Your task to perform on an android device: turn off javascript in the chrome app Image 0: 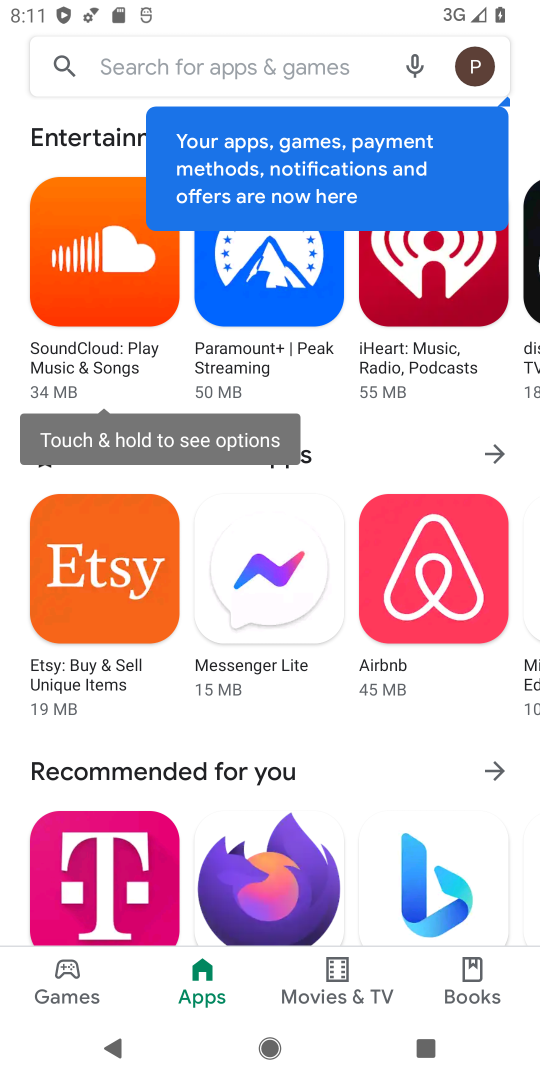
Step 0: press home button
Your task to perform on an android device: turn off javascript in the chrome app Image 1: 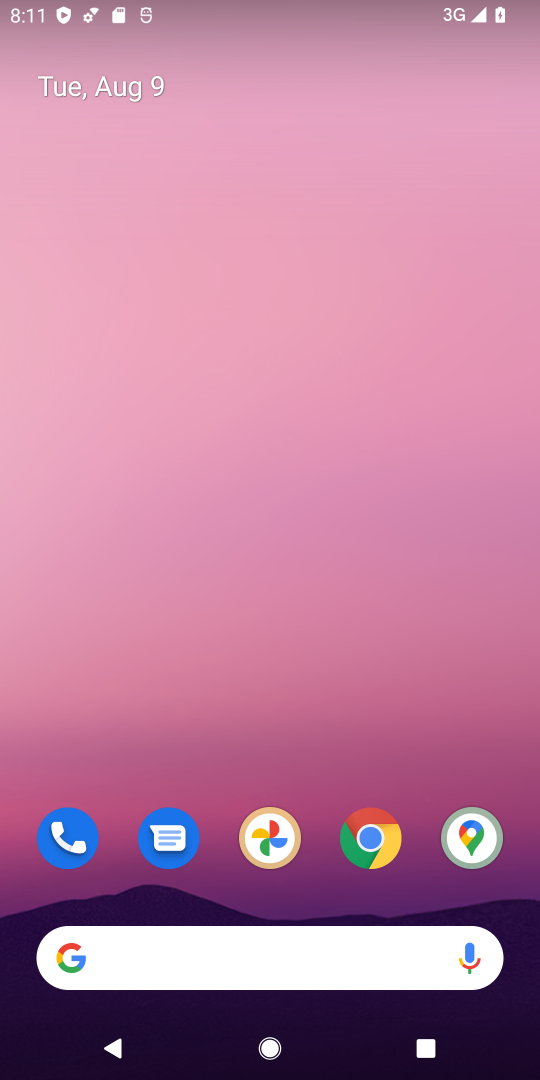
Step 1: click (371, 855)
Your task to perform on an android device: turn off javascript in the chrome app Image 2: 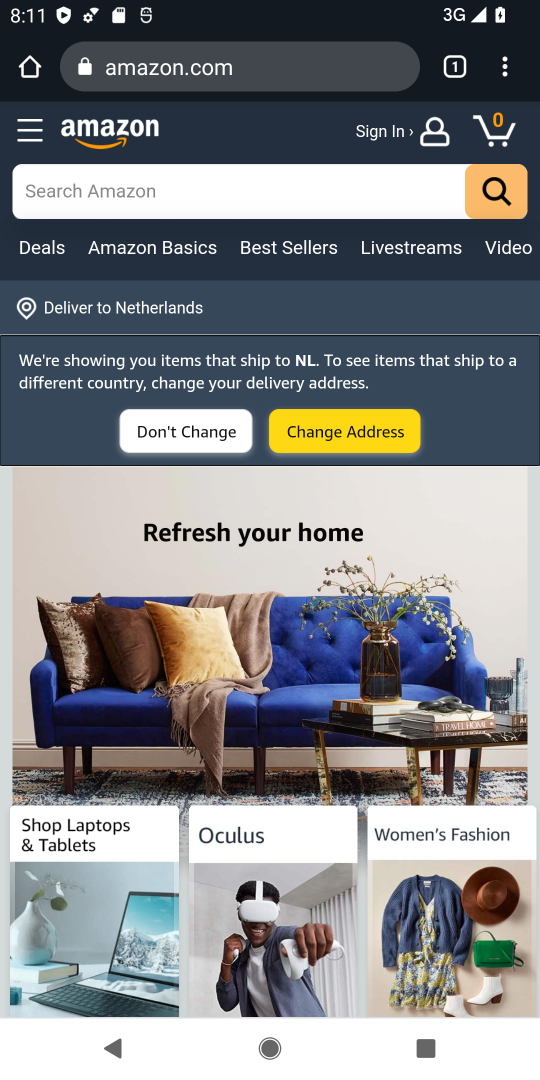
Step 2: drag from (503, 73) to (305, 774)
Your task to perform on an android device: turn off javascript in the chrome app Image 3: 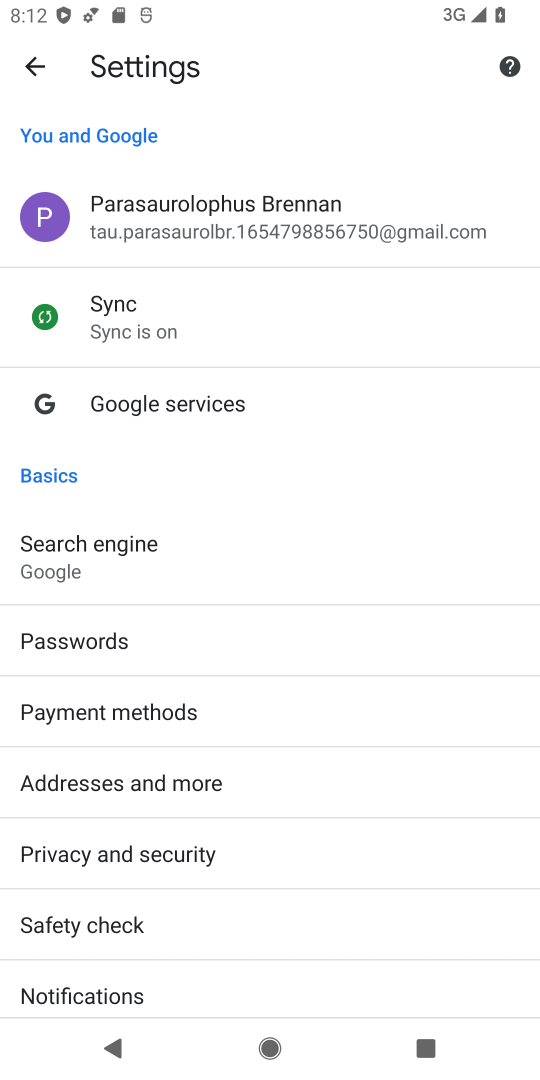
Step 3: drag from (146, 954) to (132, 441)
Your task to perform on an android device: turn off javascript in the chrome app Image 4: 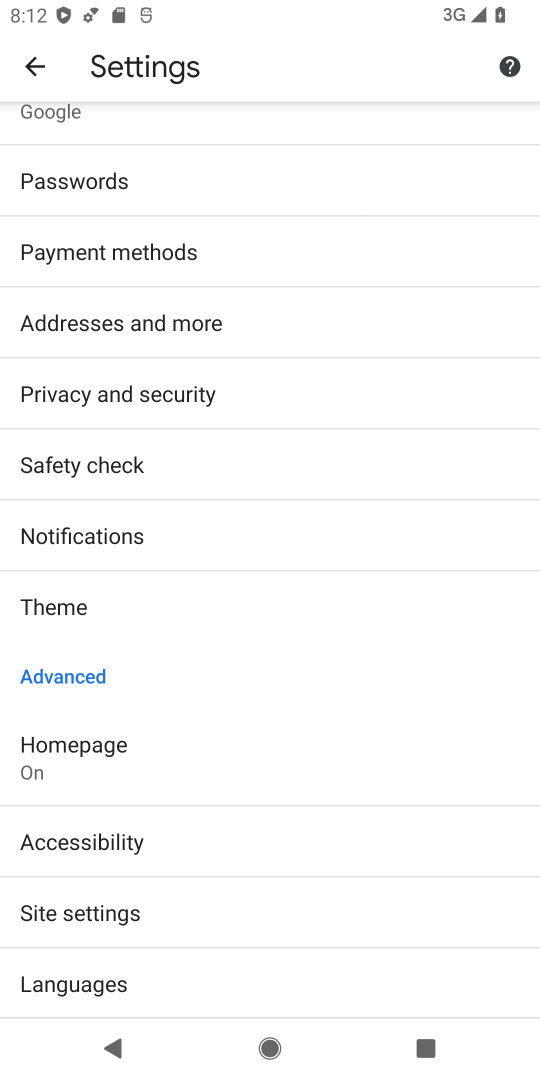
Step 4: click (104, 909)
Your task to perform on an android device: turn off javascript in the chrome app Image 5: 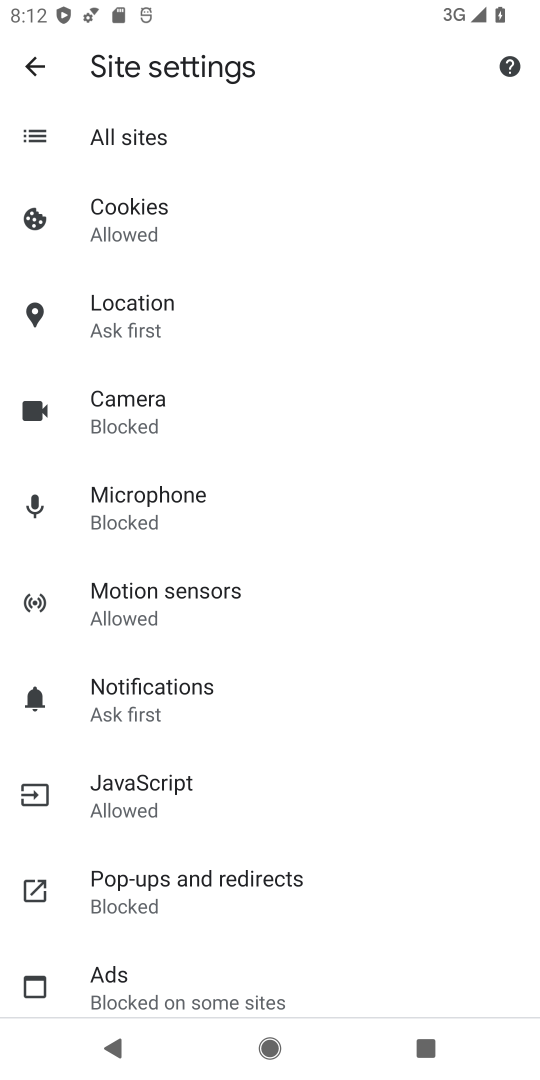
Step 5: click (169, 788)
Your task to perform on an android device: turn off javascript in the chrome app Image 6: 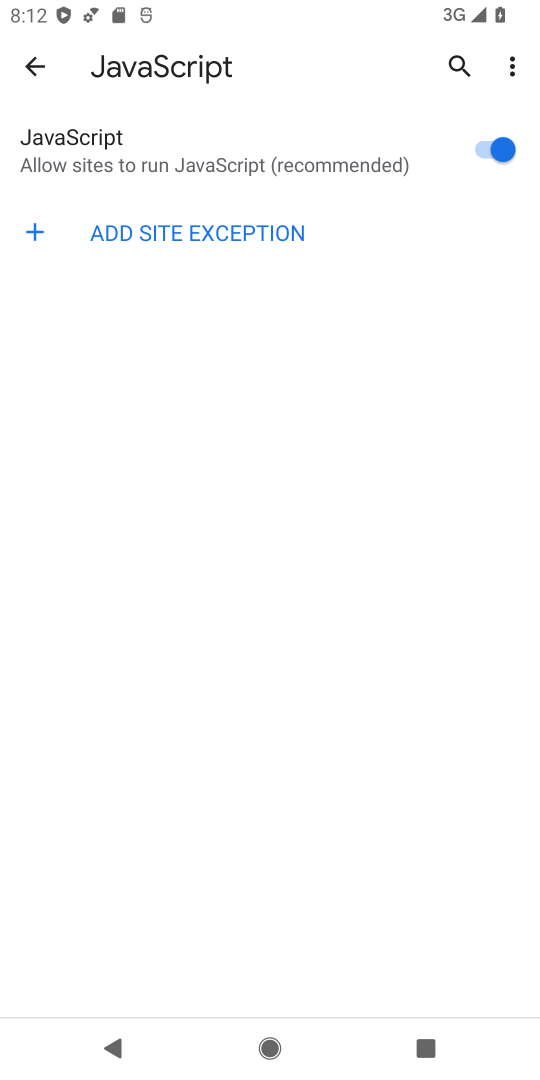
Step 6: click (493, 146)
Your task to perform on an android device: turn off javascript in the chrome app Image 7: 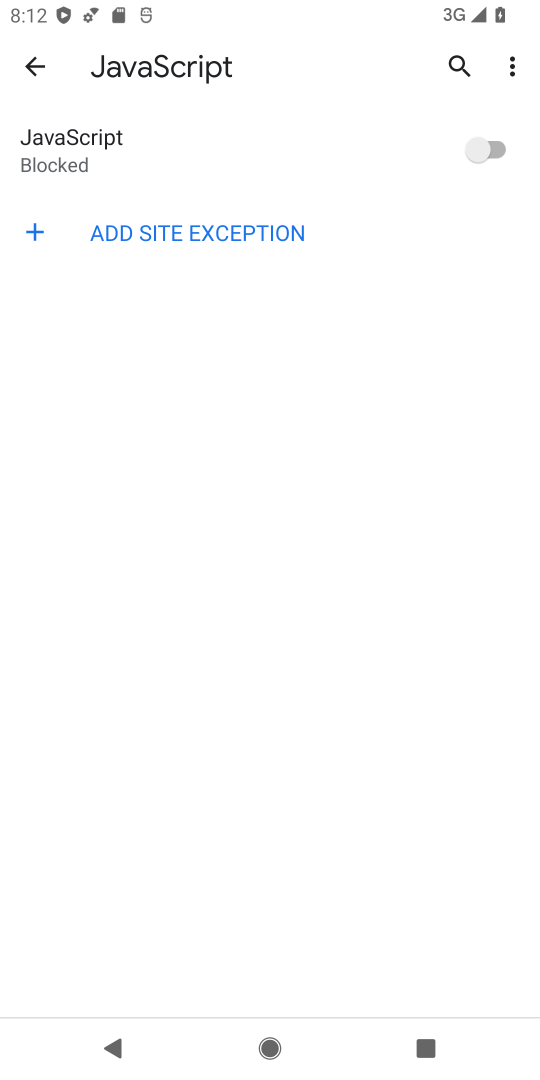
Step 7: task complete